Your task to perform on an android device: Open Maps and search for coffee Image 0: 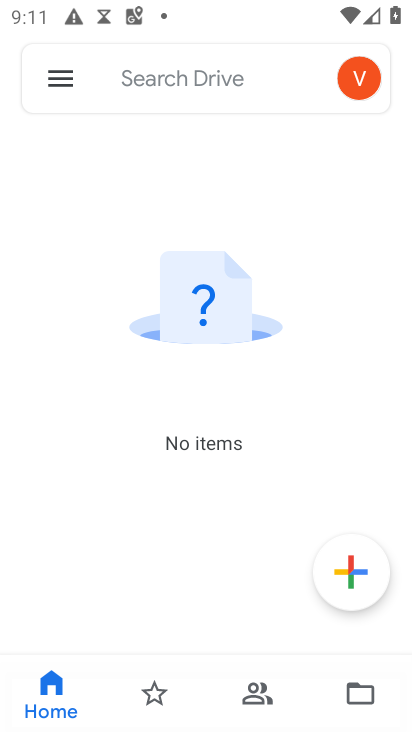
Step 0: press home button
Your task to perform on an android device: Open Maps and search for coffee Image 1: 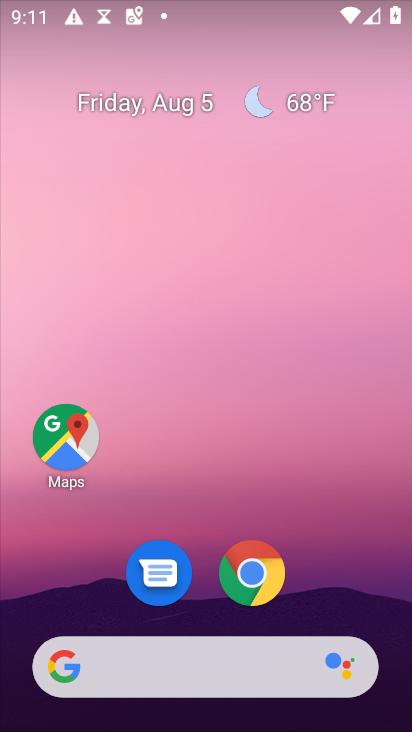
Step 1: click (67, 438)
Your task to perform on an android device: Open Maps and search for coffee Image 2: 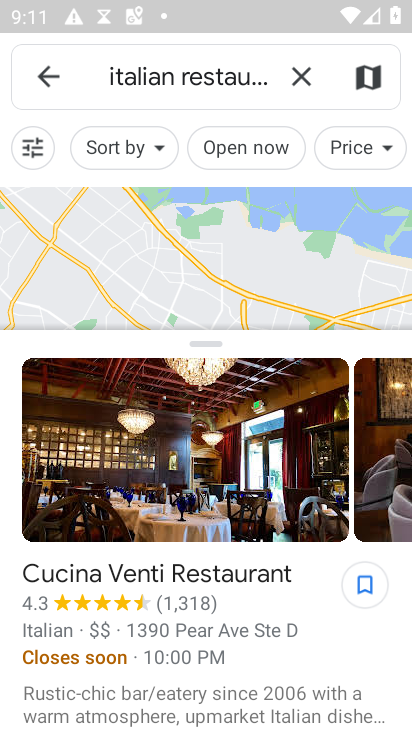
Step 2: click (302, 75)
Your task to perform on an android device: Open Maps and search for coffee Image 3: 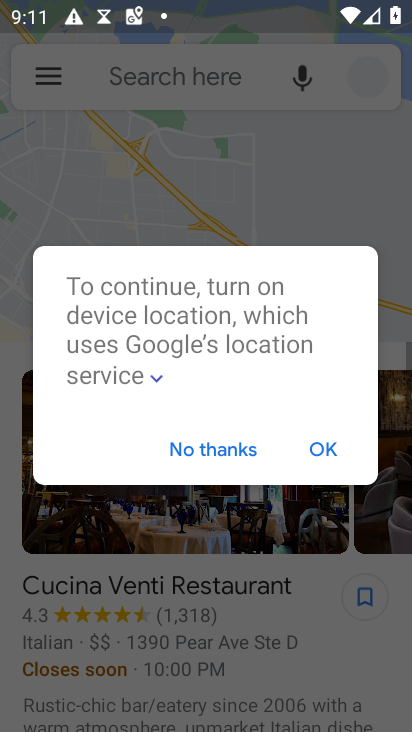
Step 3: click (232, 450)
Your task to perform on an android device: Open Maps and search for coffee Image 4: 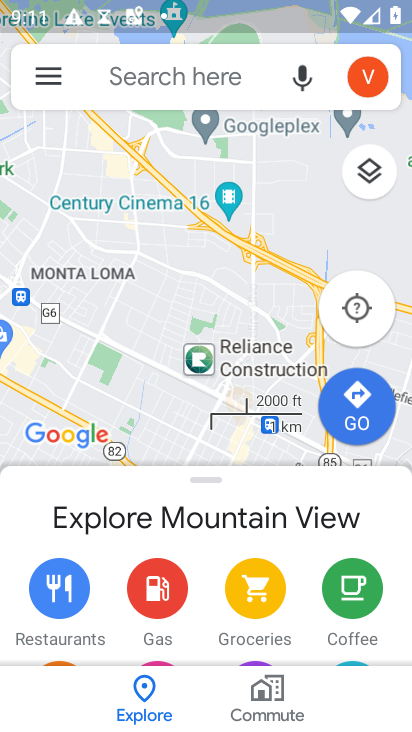
Step 4: click (204, 84)
Your task to perform on an android device: Open Maps and search for coffee Image 5: 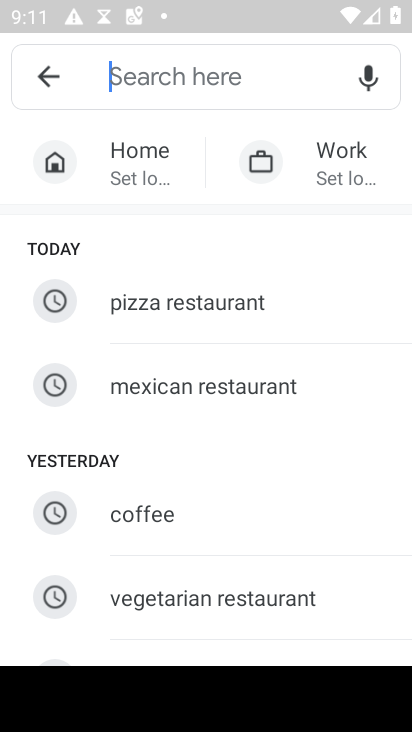
Step 5: type "coffee"
Your task to perform on an android device: Open Maps and search for coffee Image 6: 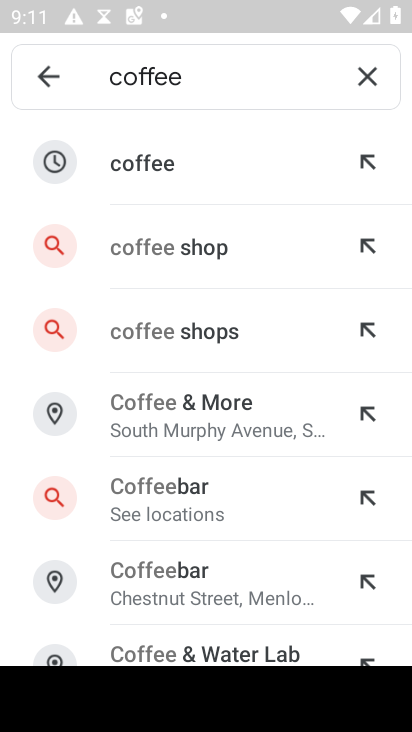
Step 6: click (162, 169)
Your task to perform on an android device: Open Maps and search for coffee Image 7: 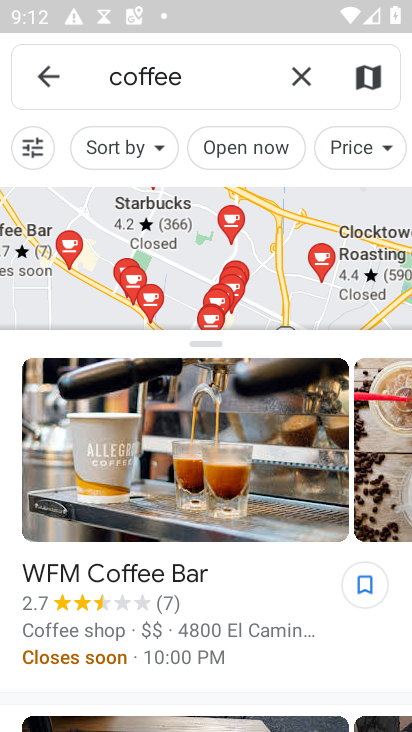
Step 7: task complete